Your task to perform on an android device: open app "NewsBreak: Local News & Alerts" (install if not already installed) Image 0: 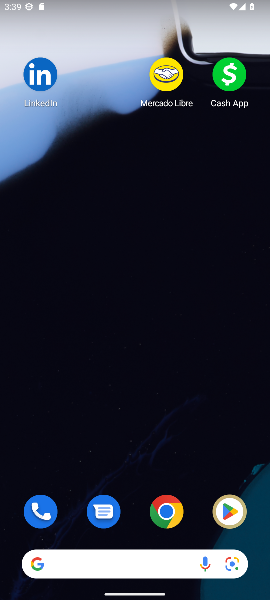
Step 0: drag from (134, 471) to (104, 199)
Your task to perform on an android device: open app "NewsBreak: Local News & Alerts" (install if not already installed) Image 1: 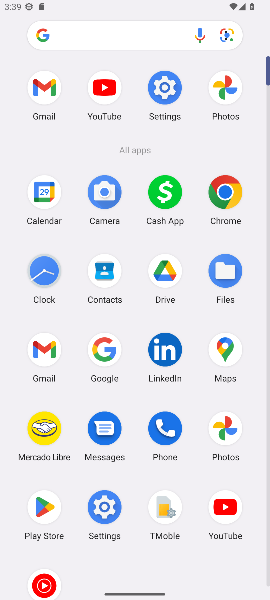
Step 1: click (41, 508)
Your task to perform on an android device: open app "NewsBreak: Local News & Alerts" (install if not already installed) Image 2: 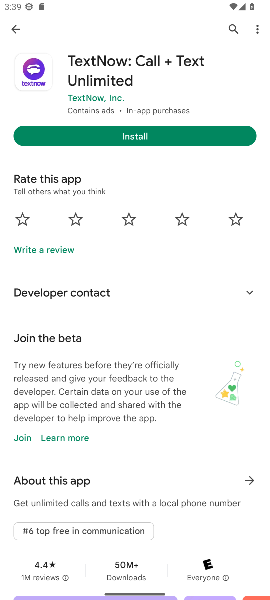
Step 2: click (39, 24)
Your task to perform on an android device: open app "NewsBreak: Local News & Alerts" (install if not already installed) Image 3: 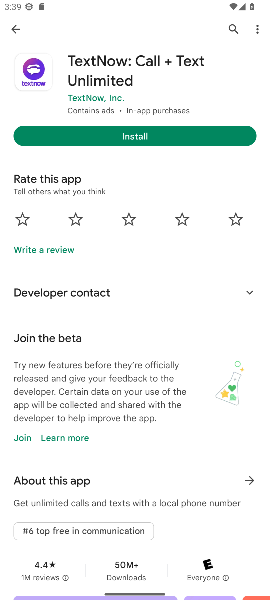
Step 3: click (15, 30)
Your task to perform on an android device: open app "NewsBreak: Local News & Alerts" (install if not already installed) Image 4: 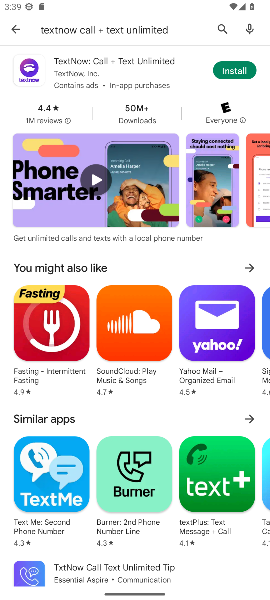
Step 4: click (14, 29)
Your task to perform on an android device: open app "NewsBreak: Local News & Alerts" (install if not already installed) Image 5: 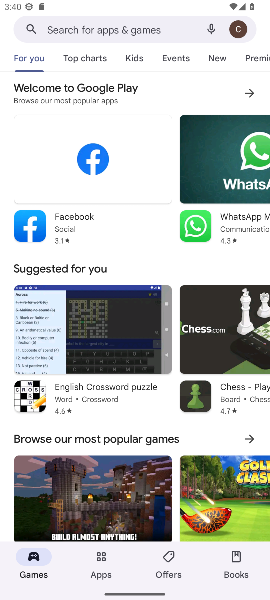
Step 5: click (76, 27)
Your task to perform on an android device: open app "NewsBreak: Local News & Alerts" (install if not already installed) Image 6: 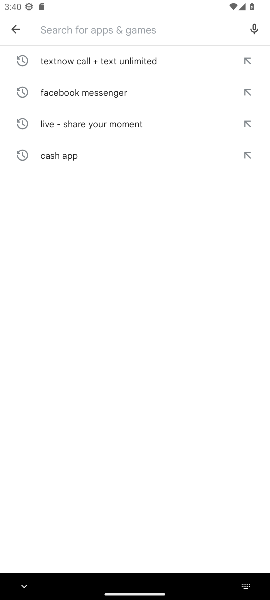
Step 6: type "NewsBreak: Local News & Alerts"
Your task to perform on an android device: open app "NewsBreak: Local News & Alerts" (install if not already installed) Image 7: 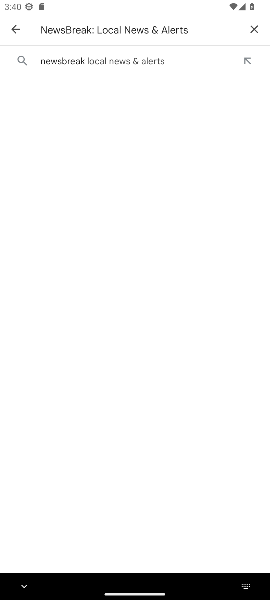
Step 7: click (125, 58)
Your task to perform on an android device: open app "NewsBreak: Local News & Alerts" (install if not already installed) Image 8: 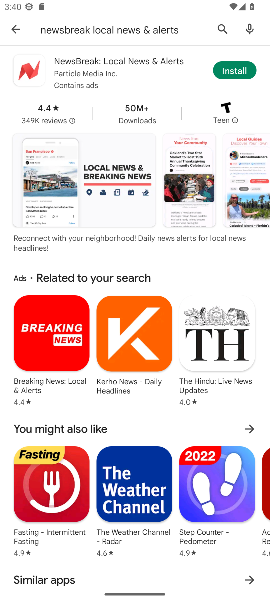
Step 8: click (232, 71)
Your task to perform on an android device: open app "NewsBreak: Local News & Alerts" (install if not already installed) Image 9: 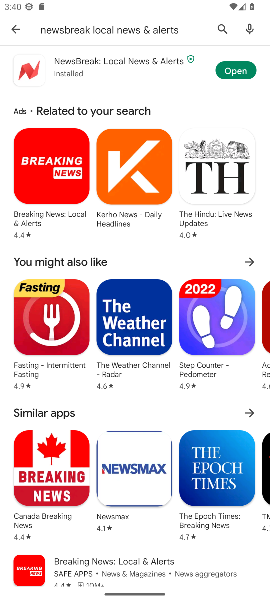
Step 9: click (238, 66)
Your task to perform on an android device: open app "NewsBreak: Local News & Alerts" (install if not already installed) Image 10: 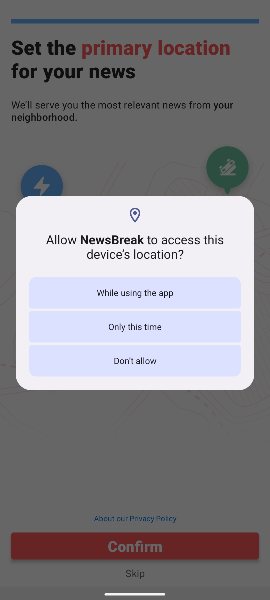
Step 10: task complete